Your task to perform on an android device: Google the capital of Peru Image 0: 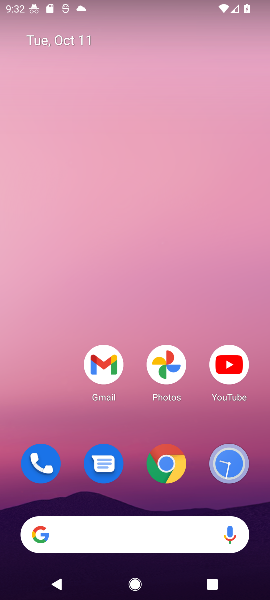
Step 0: drag from (192, 466) to (180, 106)
Your task to perform on an android device: Google the capital of Peru Image 1: 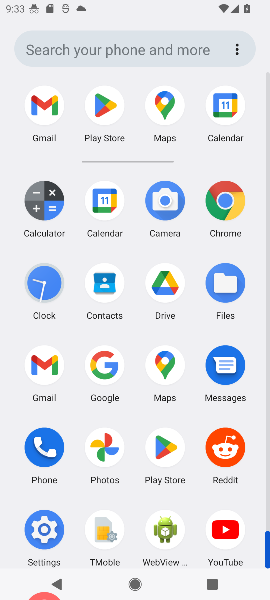
Step 1: click (98, 368)
Your task to perform on an android device: Google the capital of Peru Image 2: 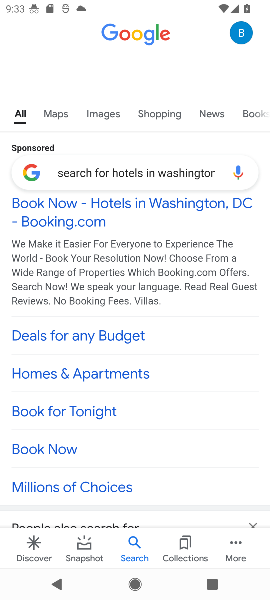
Step 2: click (116, 169)
Your task to perform on an android device: Google the capital of Peru Image 3: 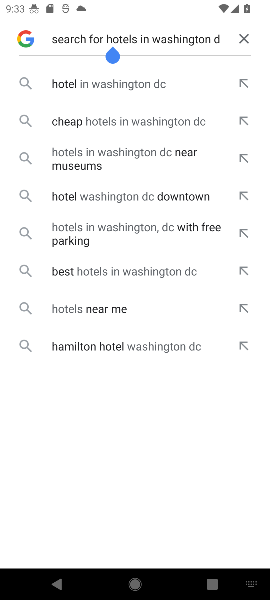
Step 3: click (242, 37)
Your task to perform on an android device: Google the capital of Peru Image 4: 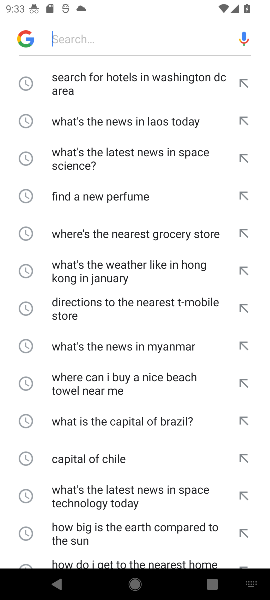
Step 4: click (94, 36)
Your task to perform on an android device: Google the capital of Peru Image 5: 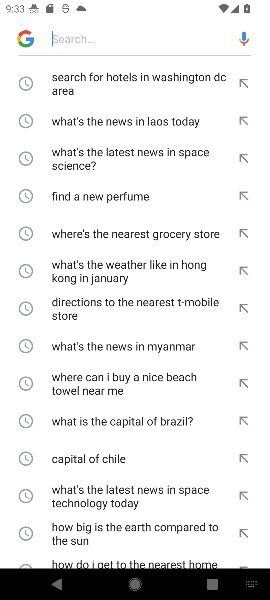
Step 5: type " the capital of Peru "
Your task to perform on an android device: Google the capital of Peru Image 6: 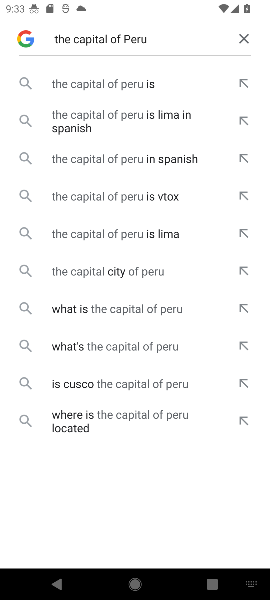
Step 6: click (95, 80)
Your task to perform on an android device: Google the capital of Peru Image 7: 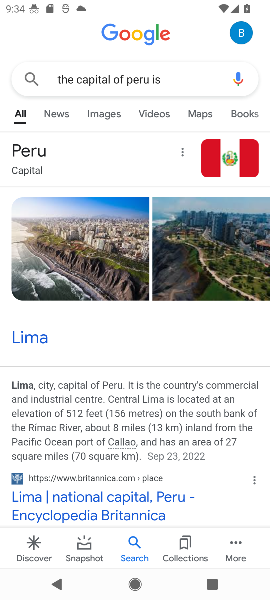
Step 7: task complete